Your task to perform on an android device: move an email to a new category in the gmail app Image 0: 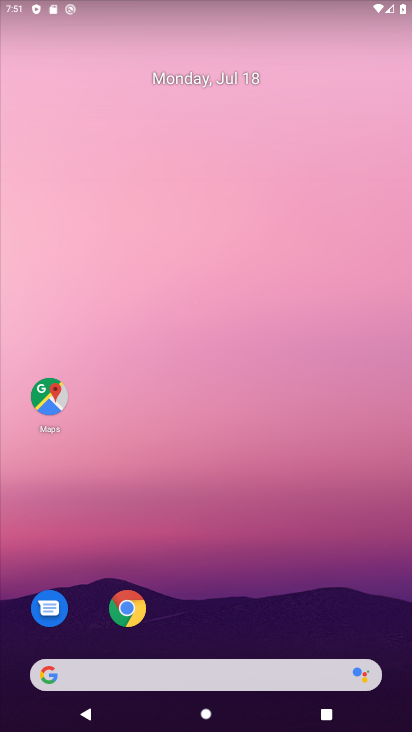
Step 0: drag from (17, 676) to (123, 119)
Your task to perform on an android device: move an email to a new category in the gmail app Image 1: 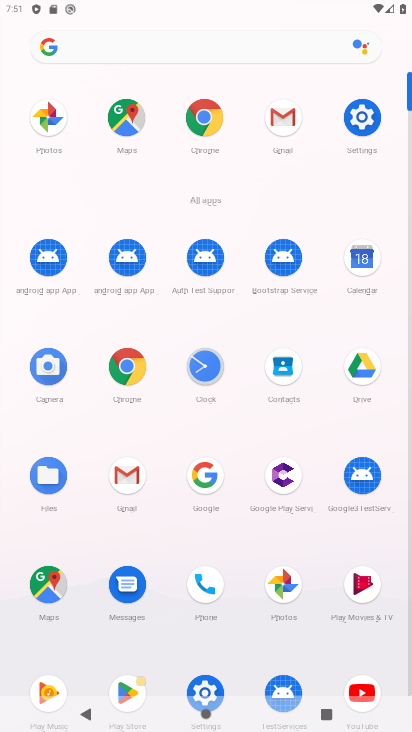
Step 1: click (123, 478)
Your task to perform on an android device: move an email to a new category in the gmail app Image 2: 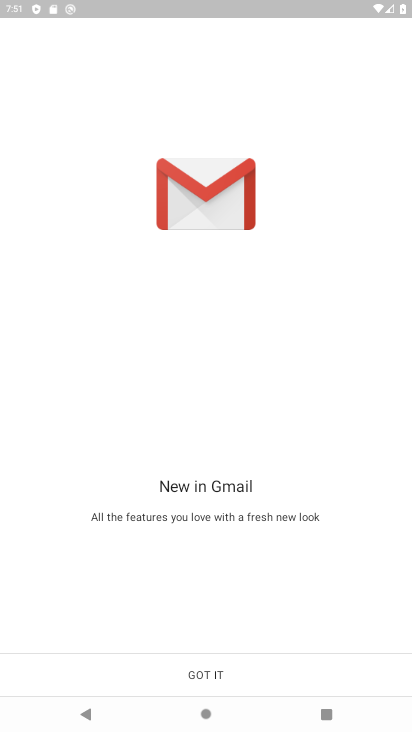
Step 2: click (191, 681)
Your task to perform on an android device: move an email to a new category in the gmail app Image 3: 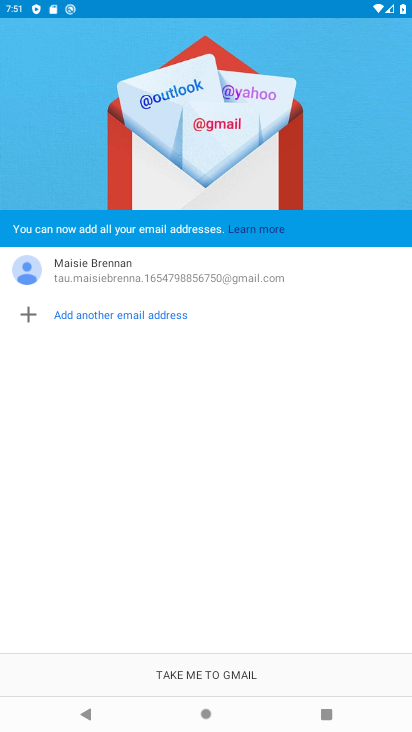
Step 3: click (231, 686)
Your task to perform on an android device: move an email to a new category in the gmail app Image 4: 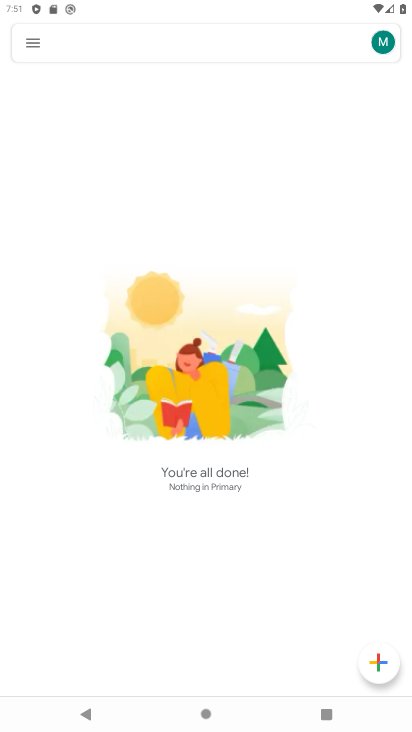
Step 4: click (39, 28)
Your task to perform on an android device: move an email to a new category in the gmail app Image 5: 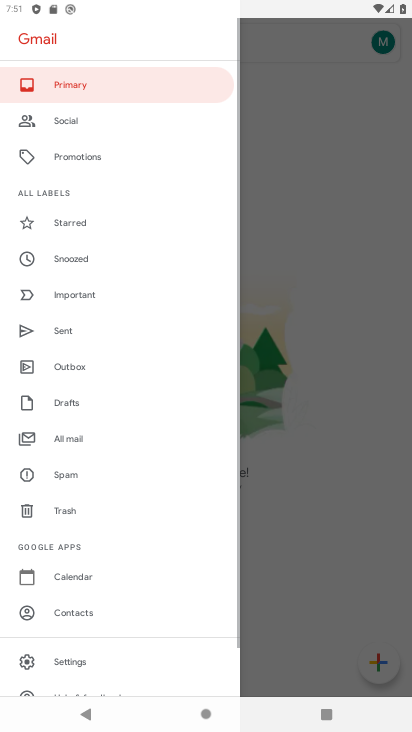
Step 5: click (61, 83)
Your task to perform on an android device: move an email to a new category in the gmail app Image 6: 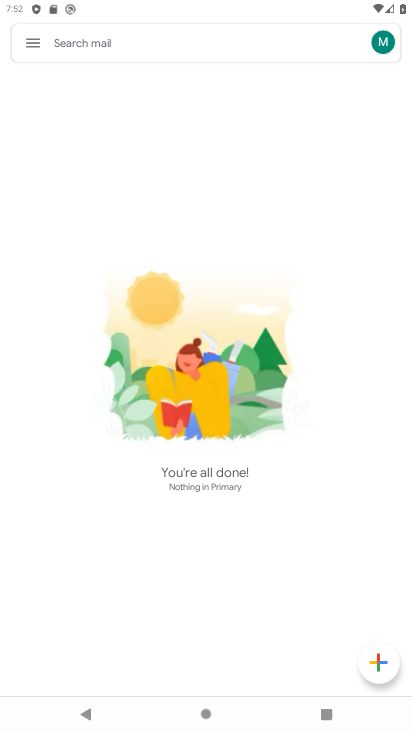
Step 6: task complete